Your task to perform on an android device: Go to Android settings Image 0: 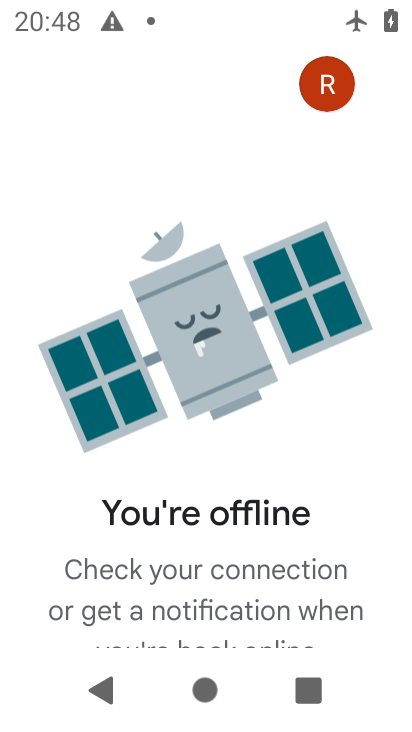
Step 0: press home button
Your task to perform on an android device: Go to Android settings Image 1: 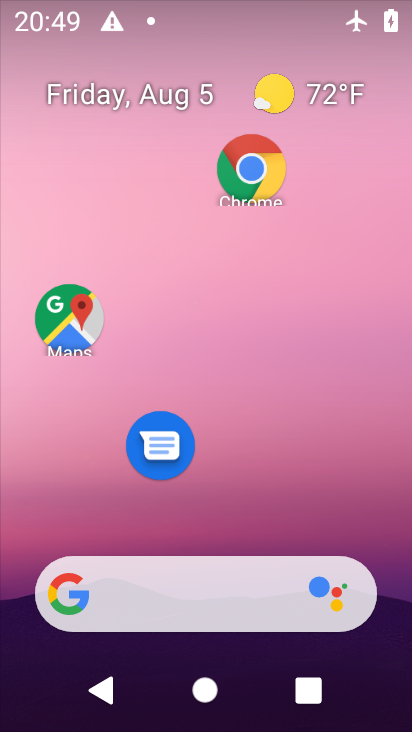
Step 1: drag from (195, 523) to (191, 157)
Your task to perform on an android device: Go to Android settings Image 2: 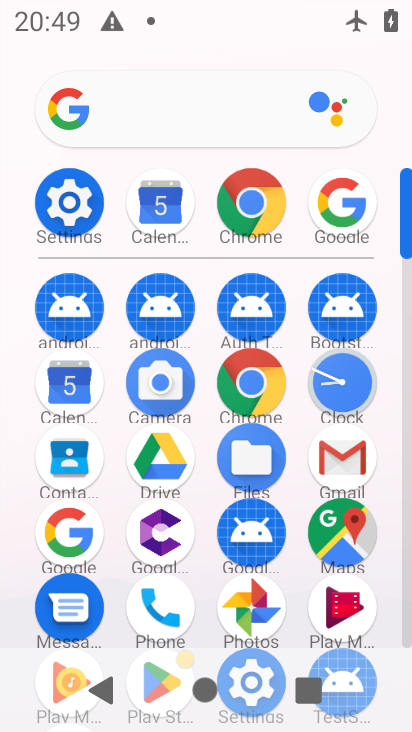
Step 2: click (62, 190)
Your task to perform on an android device: Go to Android settings Image 3: 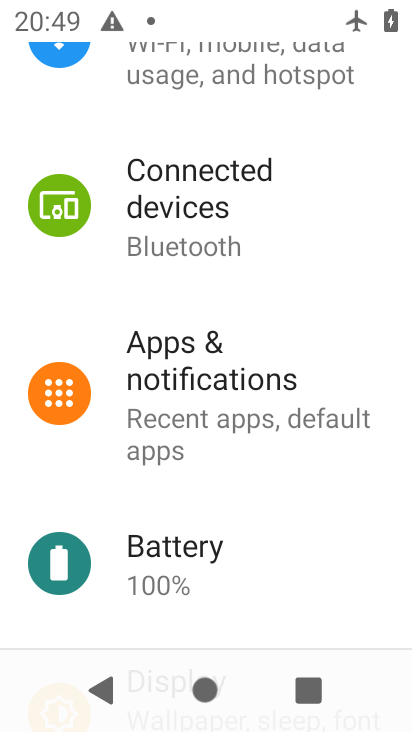
Step 3: task complete